Your task to perform on an android device: toggle data saver in the chrome app Image 0: 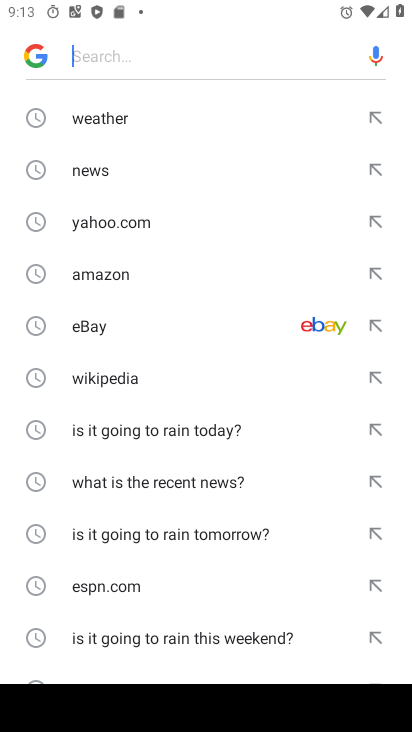
Step 0: press home button
Your task to perform on an android device: toggle data saver in the chrome app Image 1: 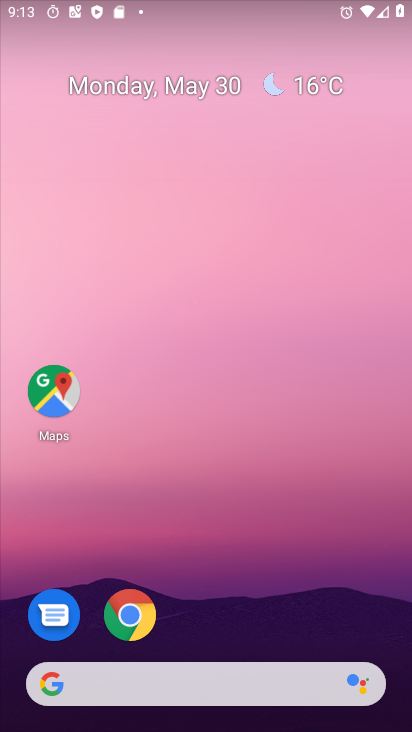
Step 1: drag from (369, 553) to (405, 78)
Your task to perform on an android device: toggle data saver in the chrome app Image 2: 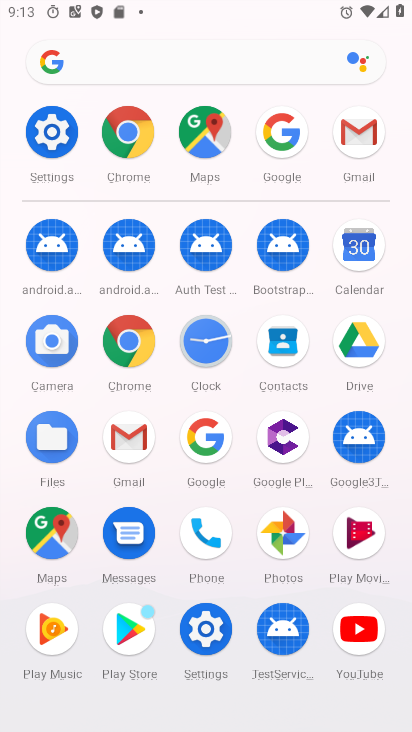
Step 2: click (145, 126)
Your task to perform on an android device: toggle data saver in the chrome app Image 3: 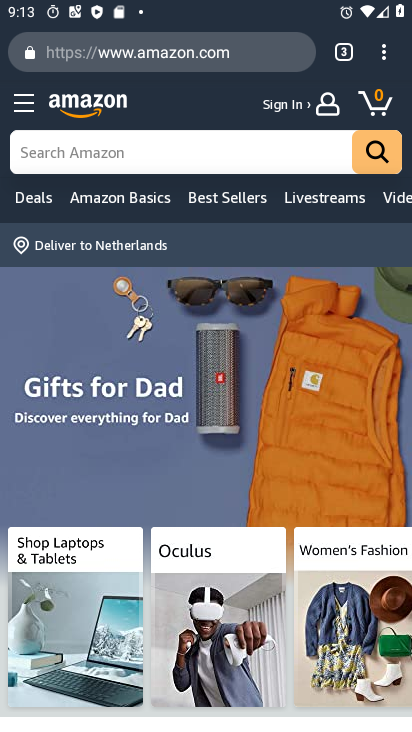
Step 3: drag from (391, 53) to (205, 637)
Your task to perform on an android device: toggle data saver in the chrome app Image 4: 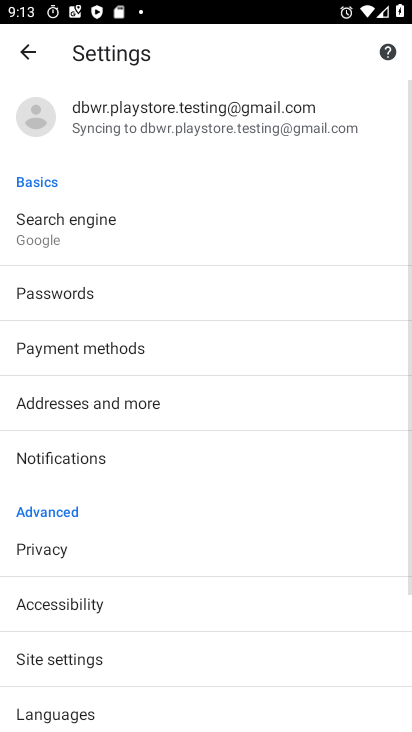
Step 4: drag from (202, 637) to (184, 237)
Your task to perform on an android device: toggle data saver in the chrome app Image 5: 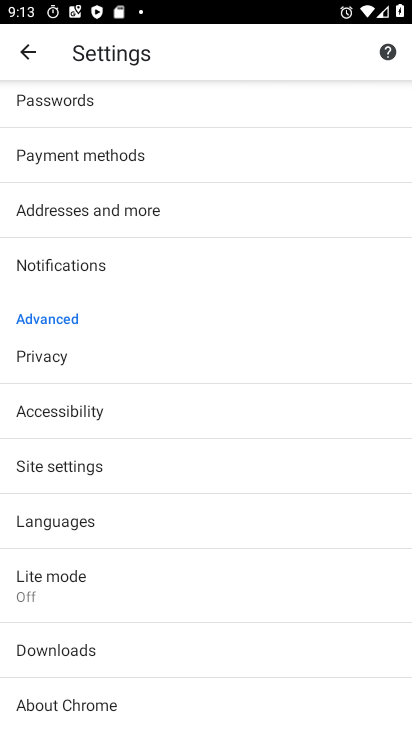
Step 5: click (101, 594)
Your task to perform on an android device: toggle data saver in the chrome app Image 6: 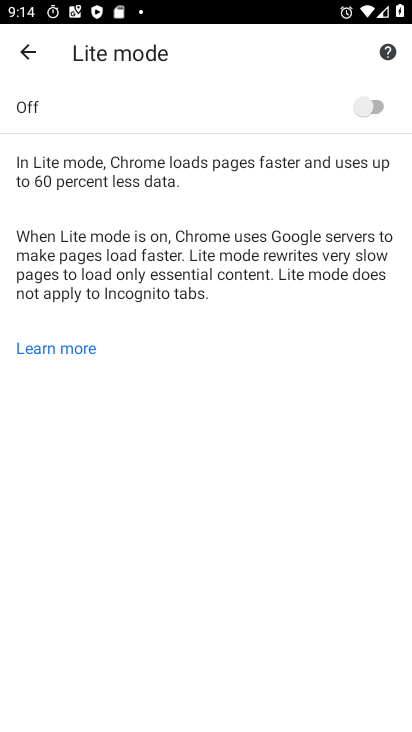
Step 6: click (363, 108)
Your task to perform on an android device: toggle data saver in the chrome app Image 7: 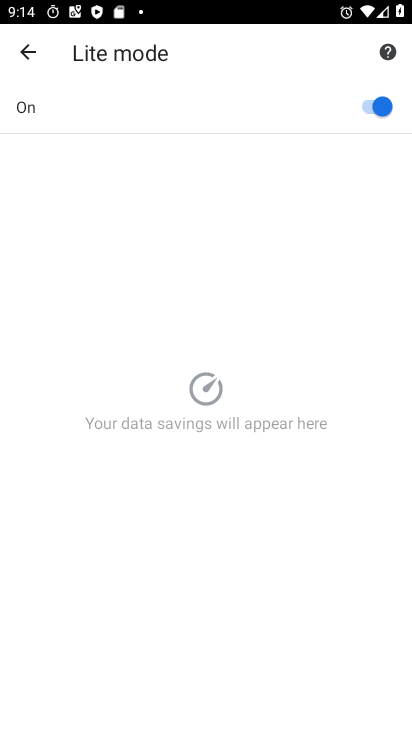
Step 7: task complete